Your task to perform on an android device: Open calendar and show me the third week of next month Image 0: 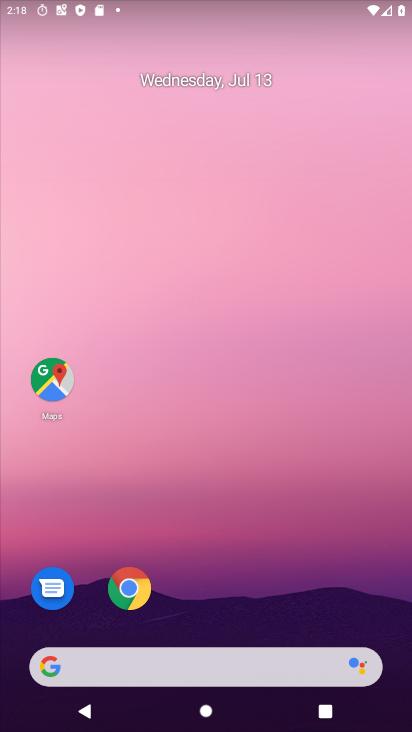
Step 0: drag from (206, 569) to (210, 289)
Your task to perform on an android device: Open calendar and show me the third week of next month Image 1: 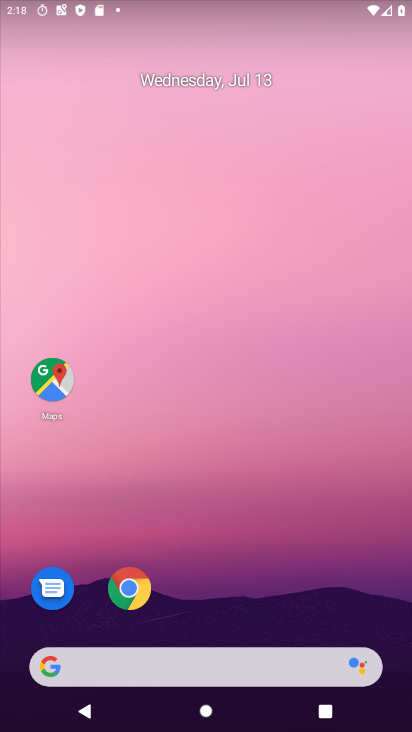
Step 1: drag from (225, 637) to (273, 266)
Your task to perform on an android device: Open calendar and show me the third week of next month Image 2: 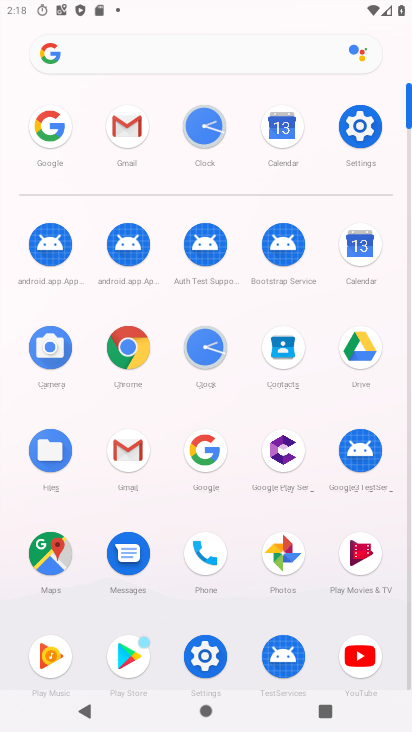
Step 2: click (364, 245)
Your task to perform on an android device: Open calendar and show me the third week of next month Image 3: 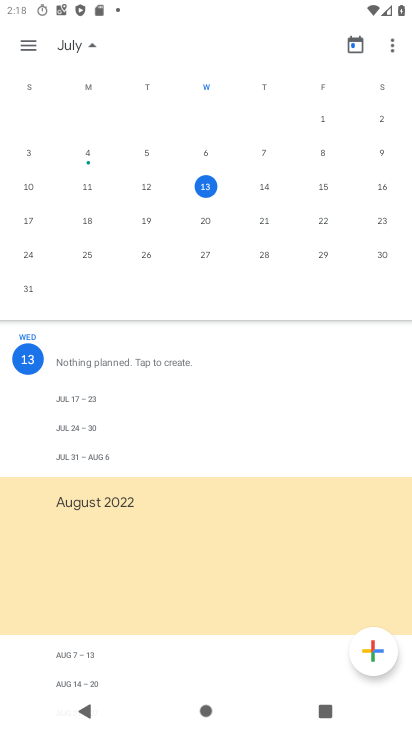
Step 3: drag from (381, 235) to (19, 244)
Your task to perform on an android device: Open calendar and show me the third week of next month Image 4: 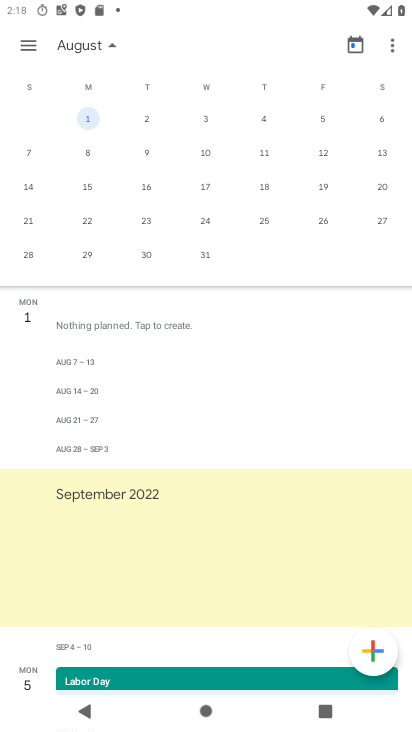
Step 4: click (31, 183)
Your task to perform on an android device: Open calendar and show me the third week of next month Image 5: 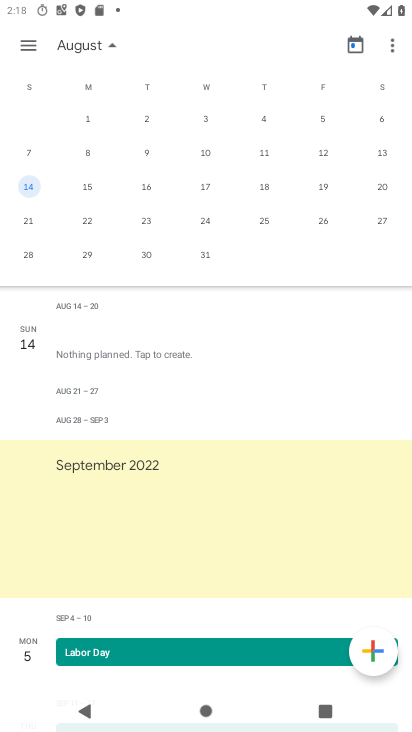
Step 5: task complete